Your task to perform on an android device: star an email in the gmail app Image 0: 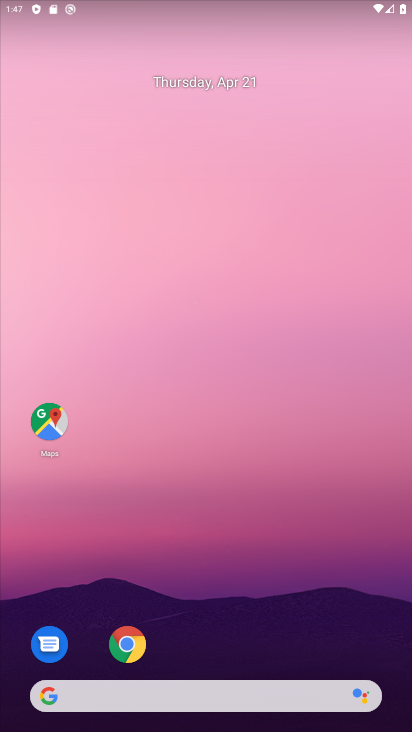
Step 0: drag from (281, 629) to (206, 129)
Your task to perform on an android device: star an email in the gmail app Image 1: 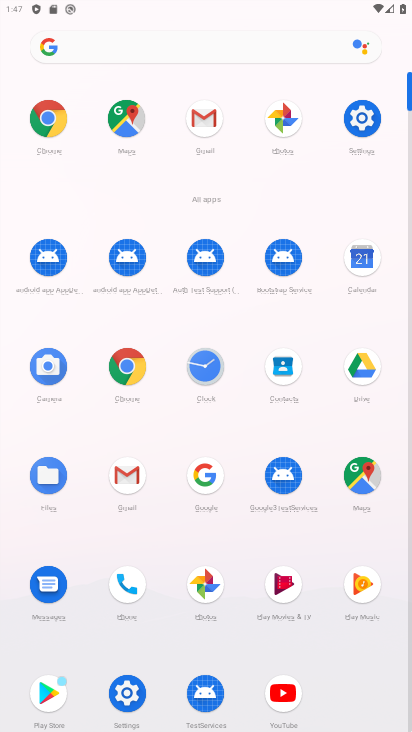
Step 1: click (206, 129)
Your task to perform on an android device: star an email in the gmail app Image 2: 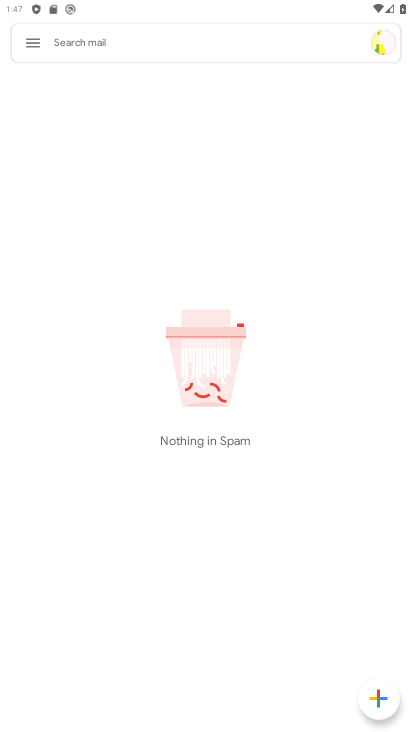
Step 2: click (29, 52)
Your task to perform on an android device: star an email in the gmail app Image 3: 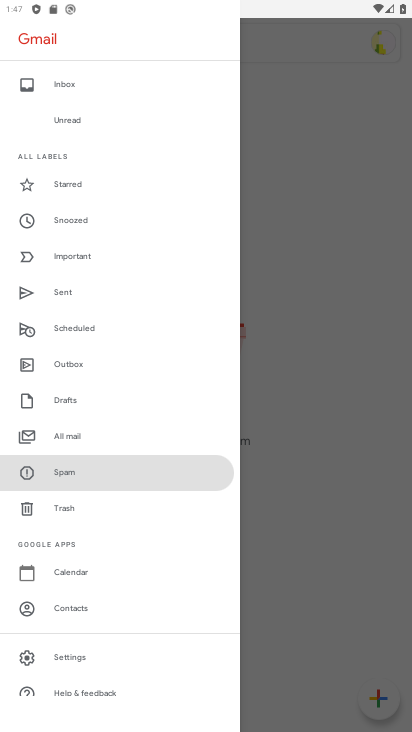
Step 3: click (93, 436)
Your task to perform on an android device: star an email in the gmail app Image 4: 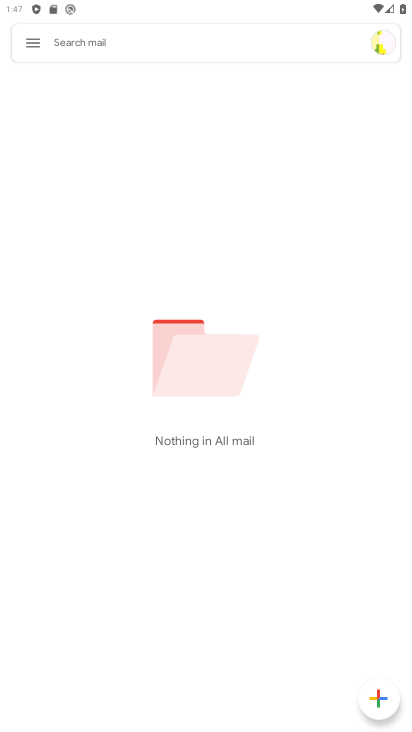
Step 4: task complete